Your task to perform on an android device: star an email in the gmail app Image 0: 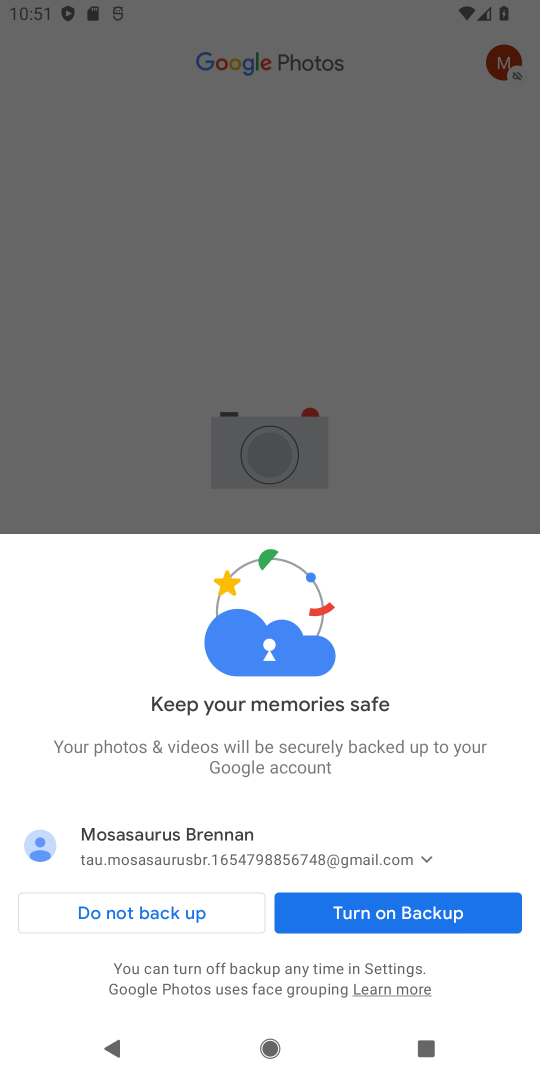
Step 0: press enter
Your task to perform on an android device: star an email in the gmail app Image 1: 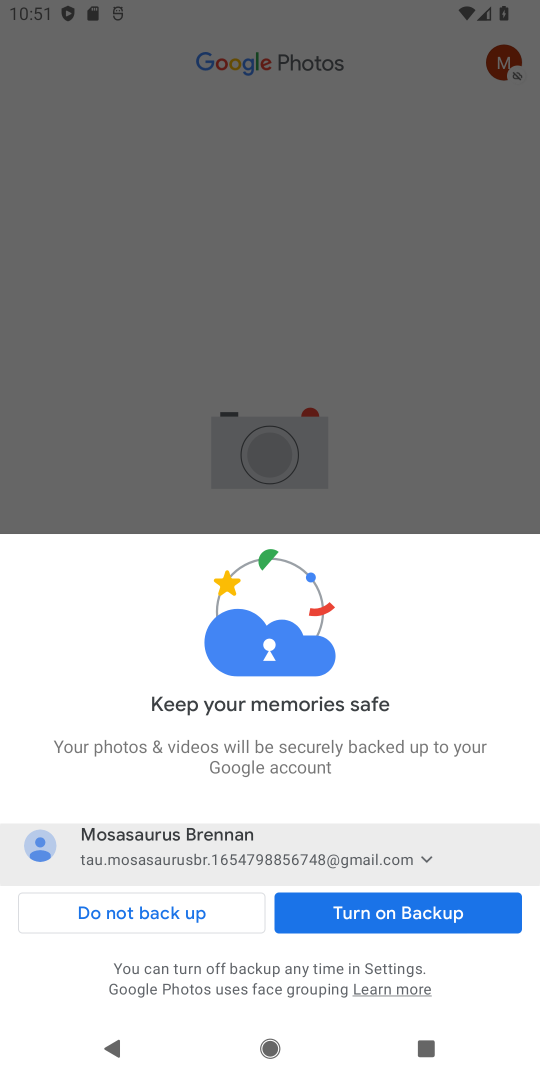
Step 1: press home button
Your task to perform on an android device: star an email in the gmail app Image 2: 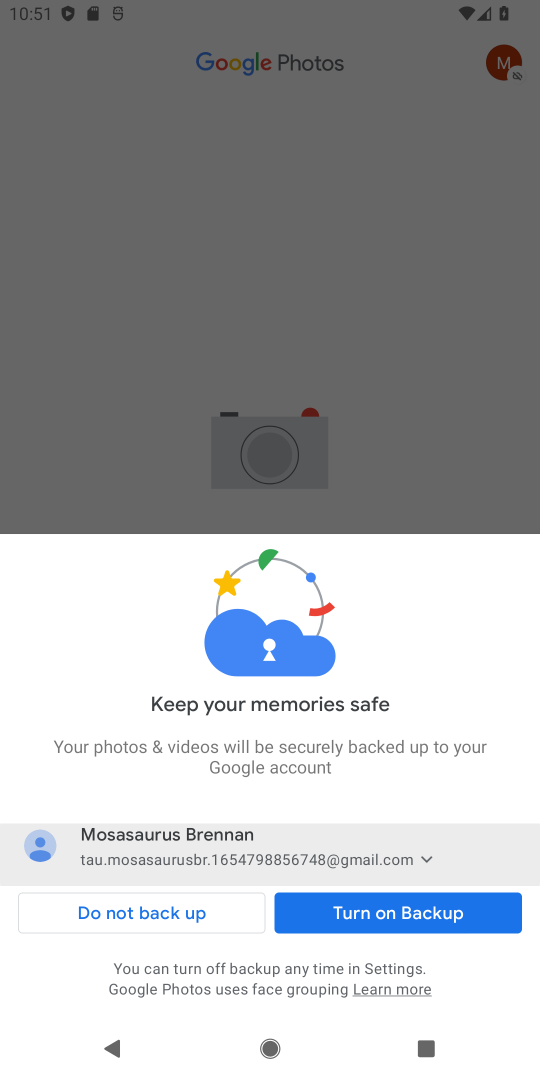
Step 2: press home button
Your task to perform on an android device: star an email in the gmail app Image 3: 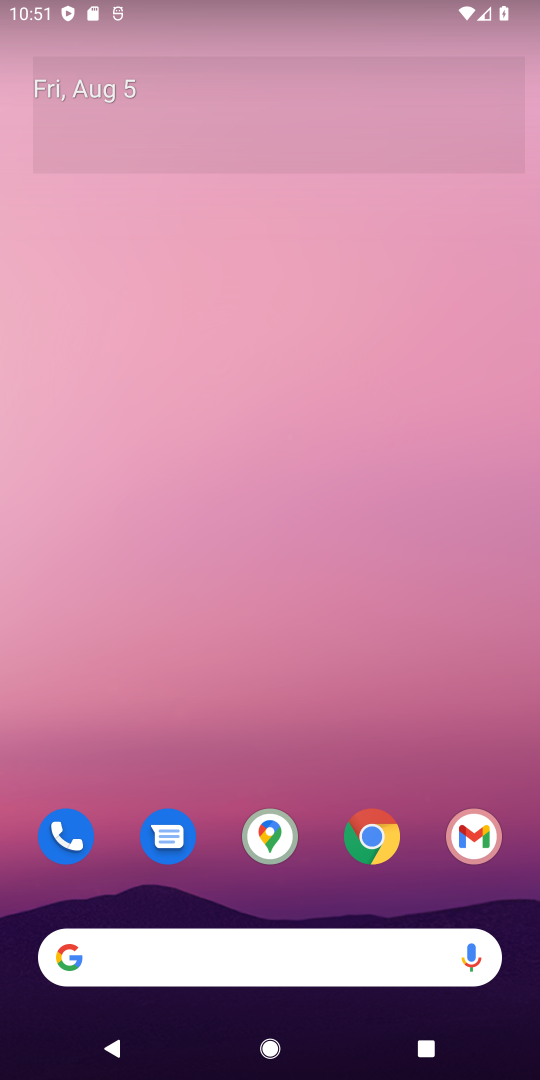
Step 3: drag from (312, 799) to (318, 181)
Your task to perform on an android device: star an email in the gmail app Image 4: 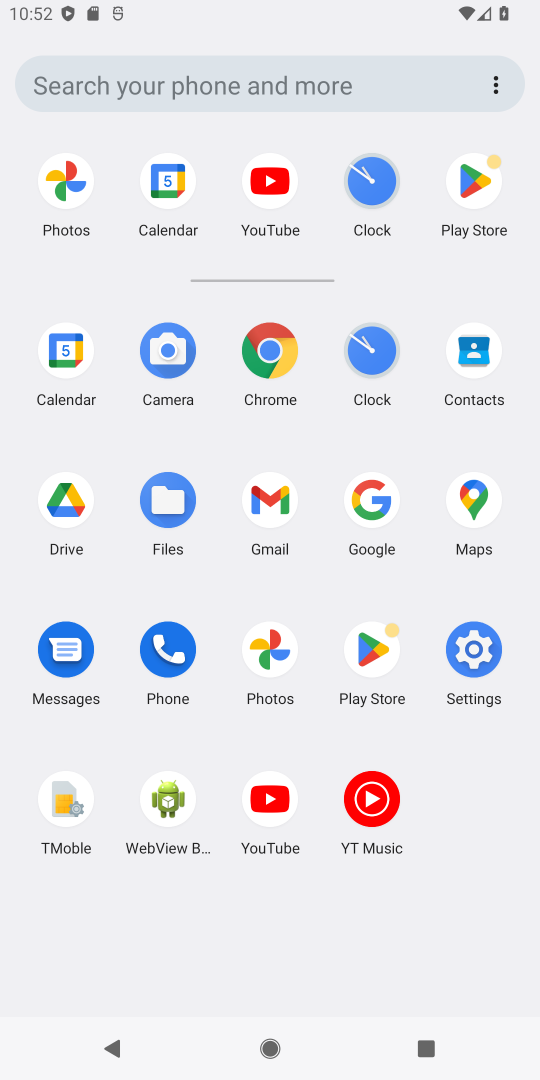
Step 4: click (273, 492)
Your task to perform on an android device: star an email in the gmail app Image 5: 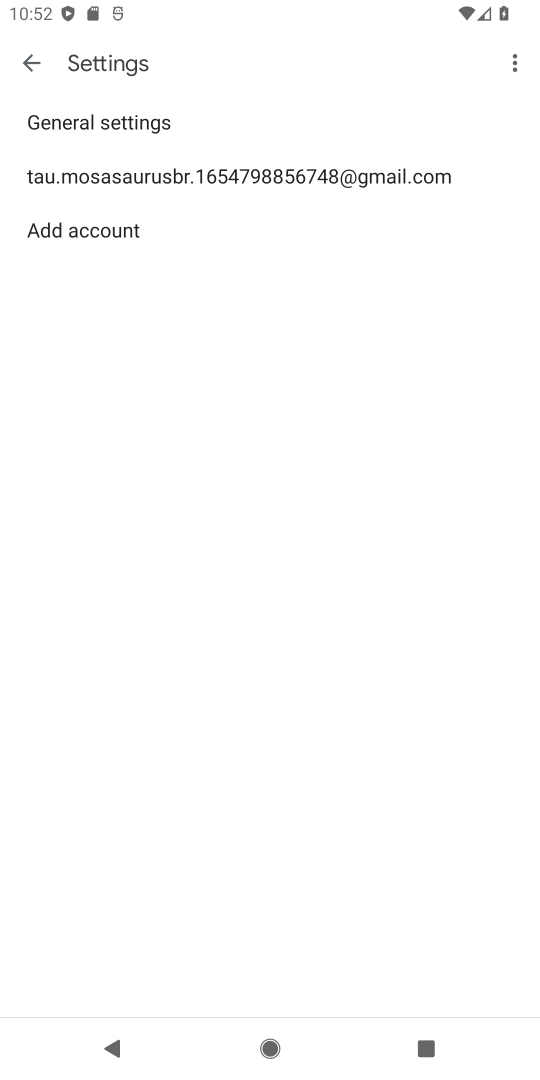
Step 5: press back button
Your task to perform on an android device: star an email in the gmail app Image 6: 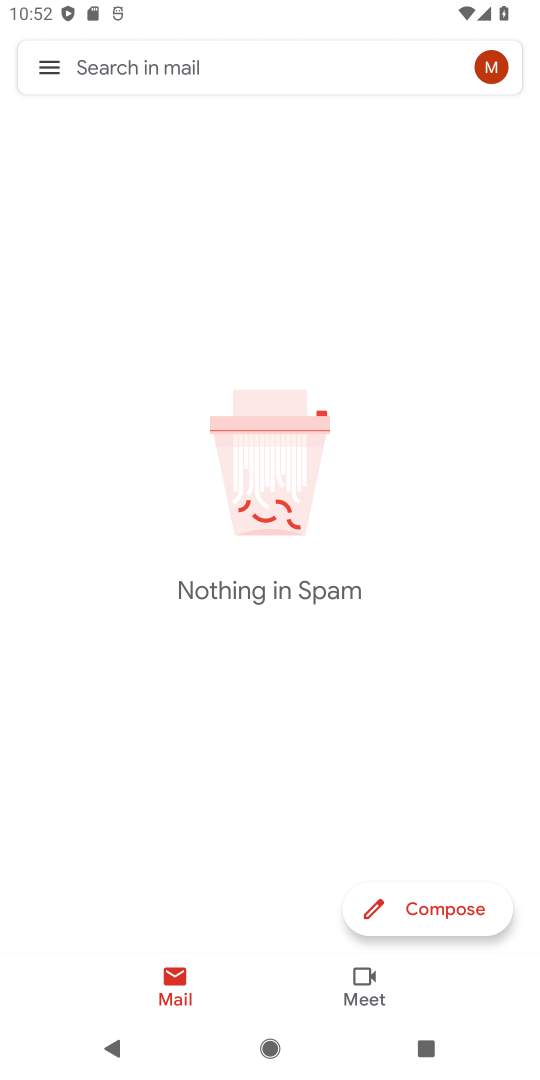
Step 6: click (47, 67)
Your task to perform on an android device: star an email in the gmail app Image 7: 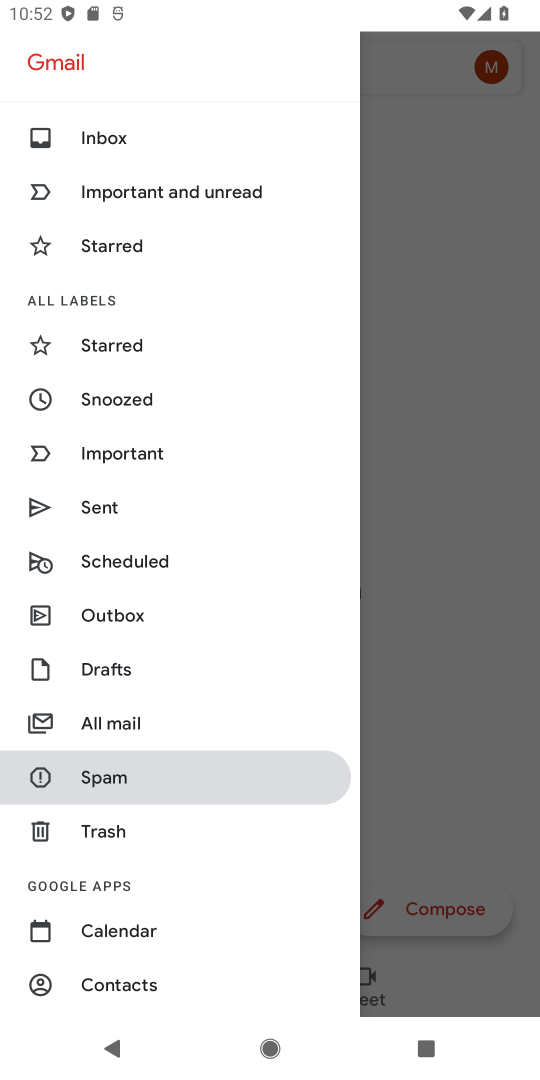
Step 7: click (100, 713)
Your task to perform on an android device: star an email in the gmail app Image 8: 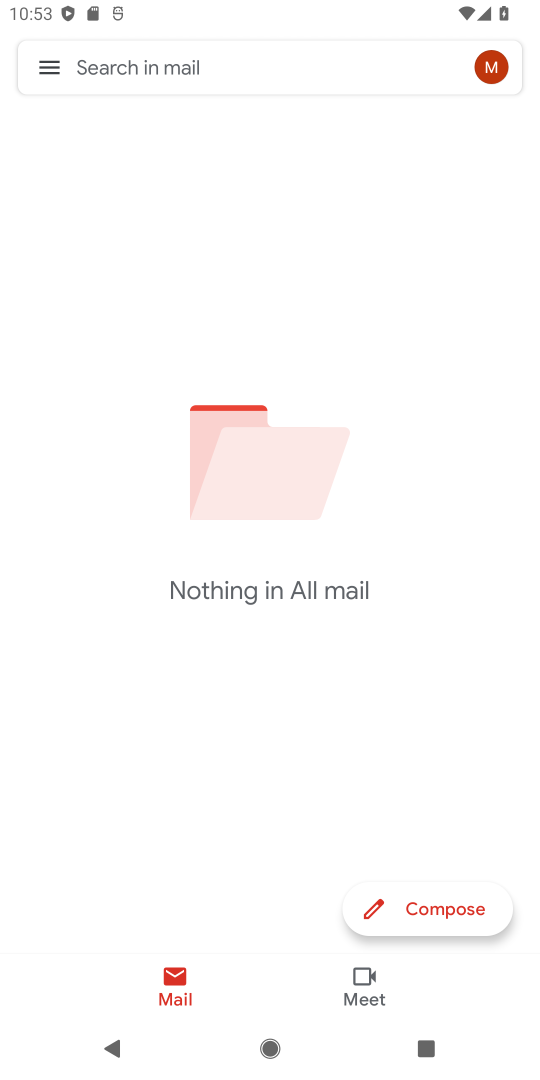
Step 8: task complete